Your task to perform on an android device: remove spam from my inbox in the gmail app Image 0: 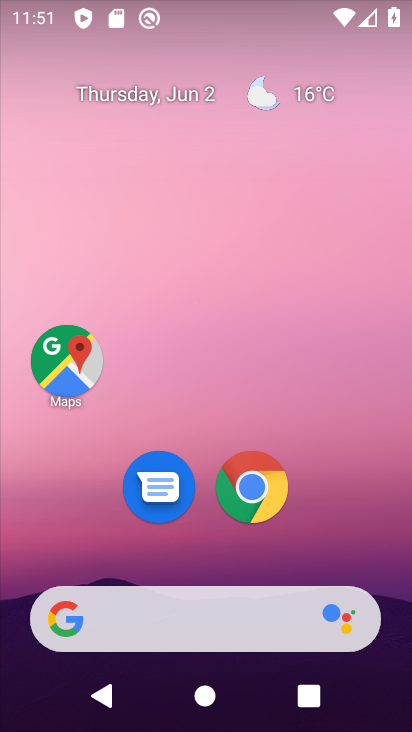
Step 0: drag from (323, 534) to (282, 2)
Your task to perform on an android device: remove spam from my inbox in the gmail app Image 1: 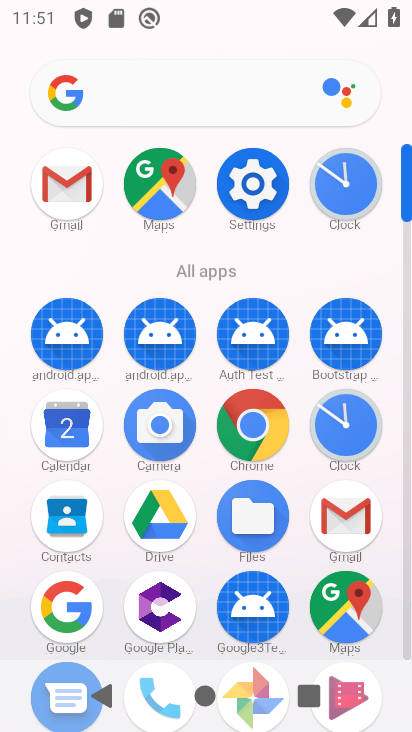
Step 1: click (71, 200)
Your task to perform on an android device: remove spam from my inbox in the gmail app Image 2: 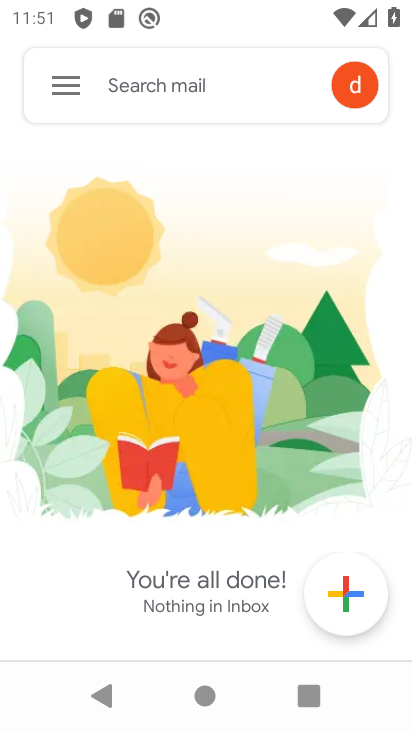
Step 2: click (58, 86)
Your task to perform on an android device: remove spam from my inbox in the gmail app Image 3: 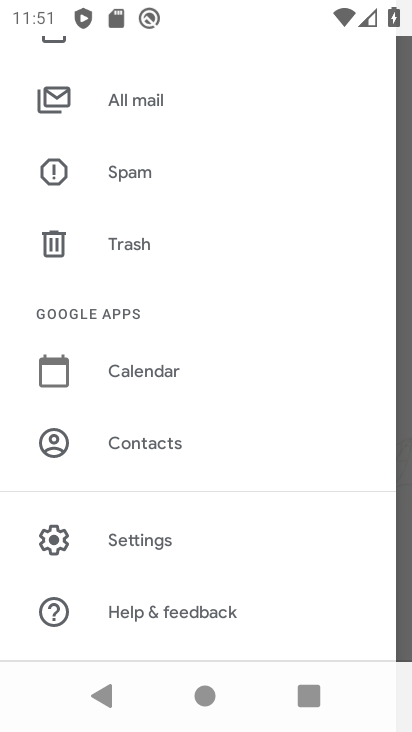
Step 3: click (149, 180)
Your task to perform on an android device: remove spam from my inbox in the gmail app Image 4: 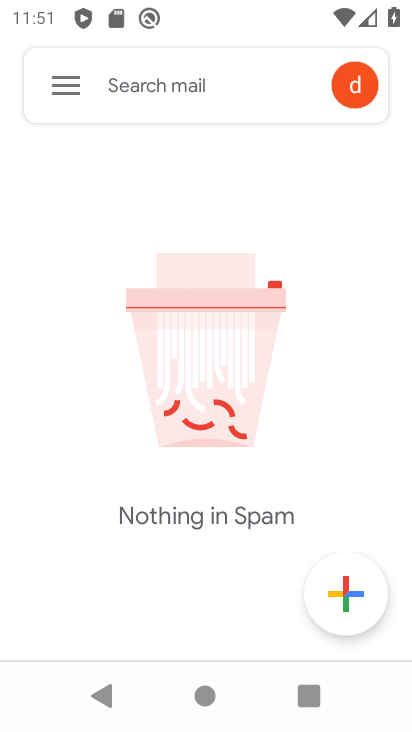
Step 4: task complete